Your task to perform on an android device: Open Maps and search for coffee Image 0: 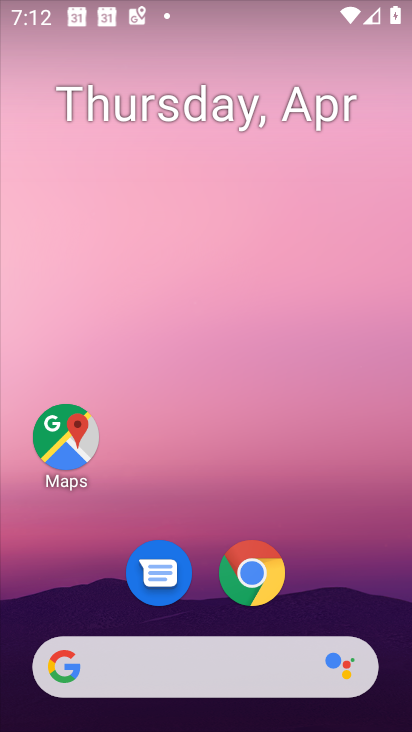
Step 0: click (60, 438)
Your task to perform on an android device: Open Maps and search for coffee Image 1: 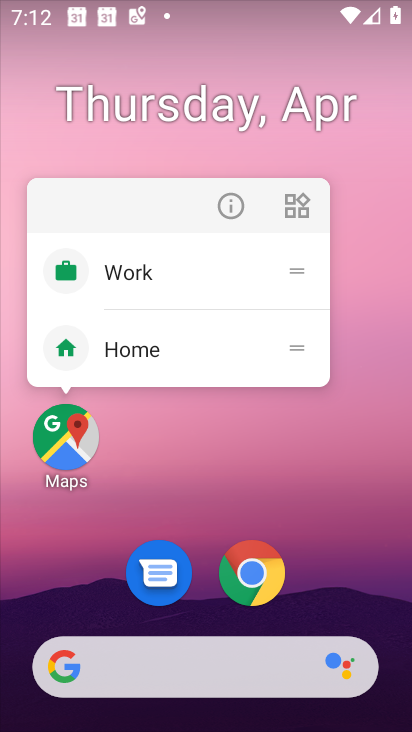
Step 1: click (60, 438)
Your task to perform on an android device: Open Maps and search for coffee Image 2: 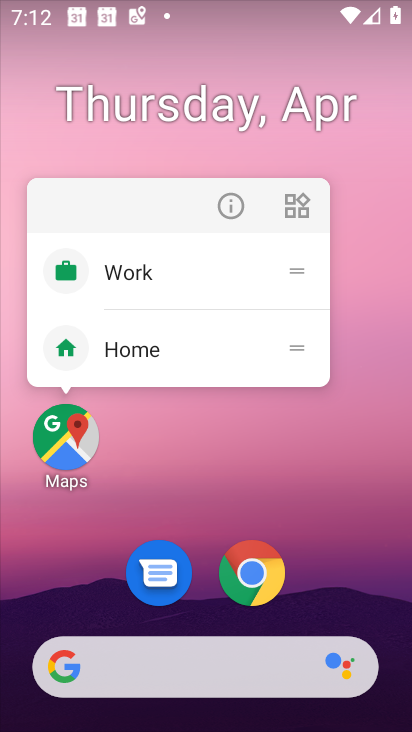
Step 2: click (60, 438)
Your task to perform on an android device: Open Maps and search for coffee Image 3: 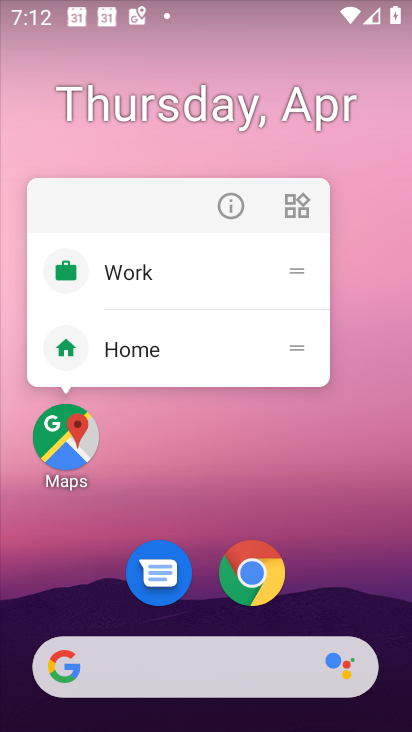
Step 3: click (60, 438)
Your task to perform on an android device: Open Maps and search for coffee Image 4: 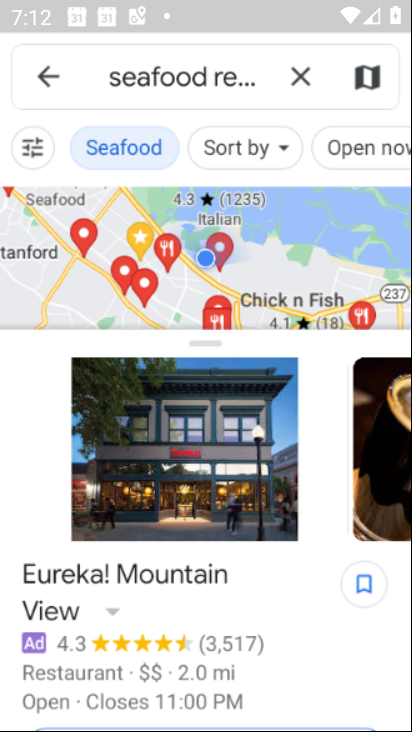
Step 4: click (60, 438)
Your task to perform on an android device: Open Maps and search for coffee Image 5: 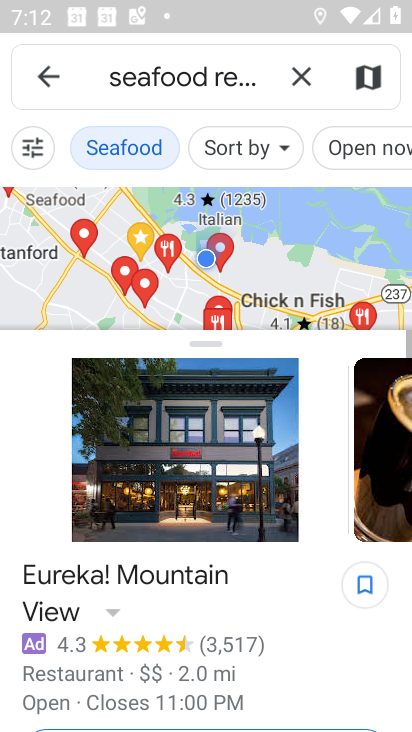
Step 5: click (307, 69)
Your task to perform on an android device: Open Maps and search for coffee Image 6: 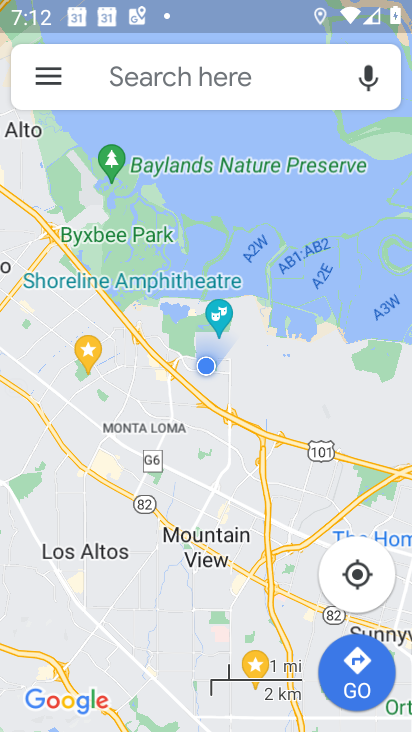
Step 6: click (128, 75)
Your task to perform on an android device: Open Maps and search for coffee Image 7: 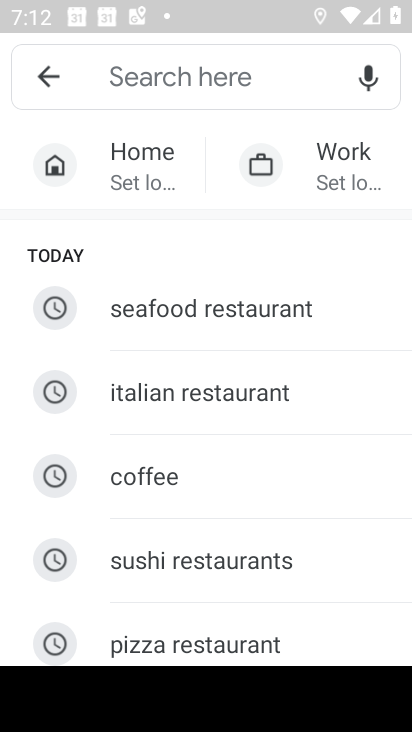
Step 7: type "coffee"
Your task to perform on an android device: Open Maps and search for coffee Image 8: 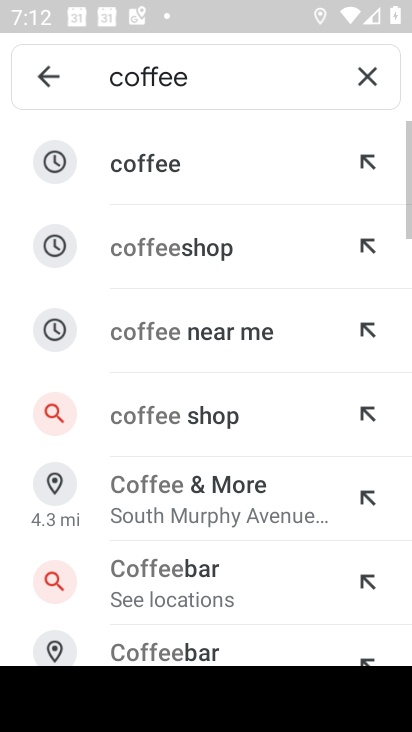
Step 8: click (146, 158)
Your task to perform on an android device: Open Maps and search for coffee Image 9: 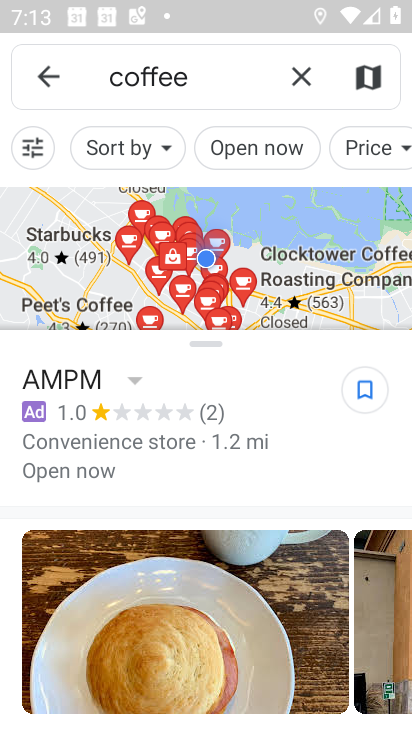
Step 9: task complete